Your task to perform on an android device: Open accessibility settings Image 0: 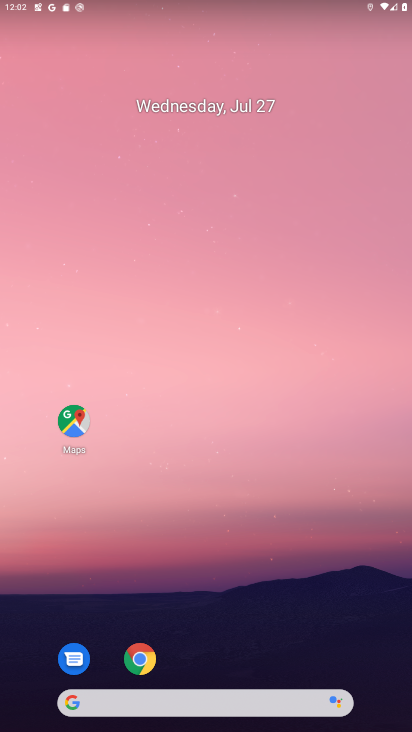
Step 0: drag from (190, 688) to (238, 83)
Your task to perform on an android device: Open accessibility settings Image 1: 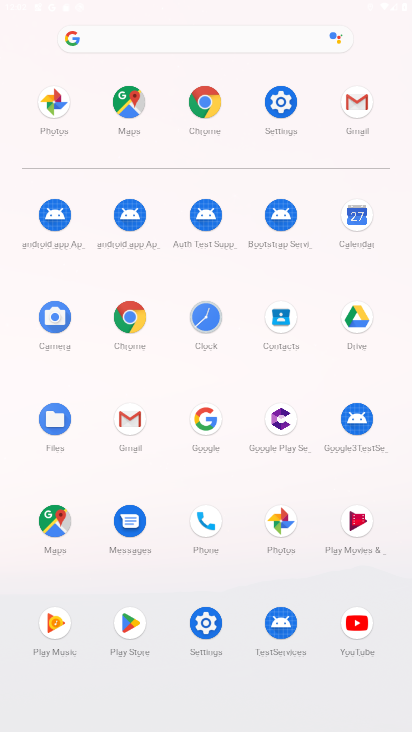
Step 1: click (284, 102)
Your task to perform on an android device: Open accessibility settings Image 2: 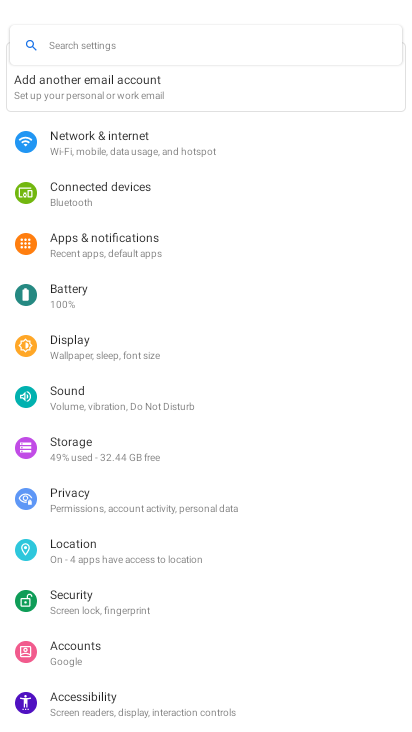
Step 2: click (114, 703)
Your task to perform on an android device: Open accessibility settings Image 3: 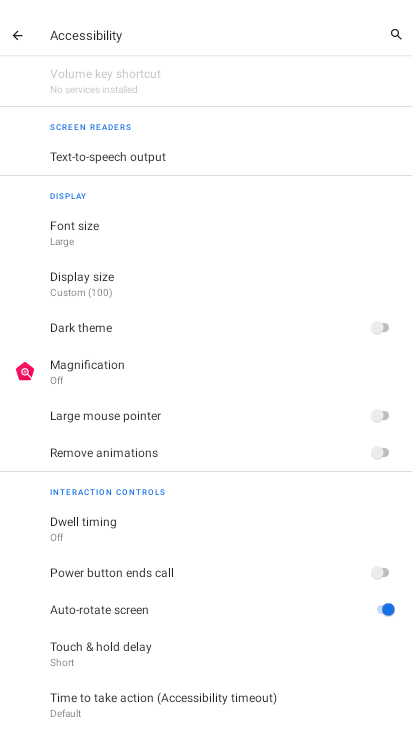
Step 3: task complete